Your task to perform on an android device: change your default location settings in chrome Image 0: 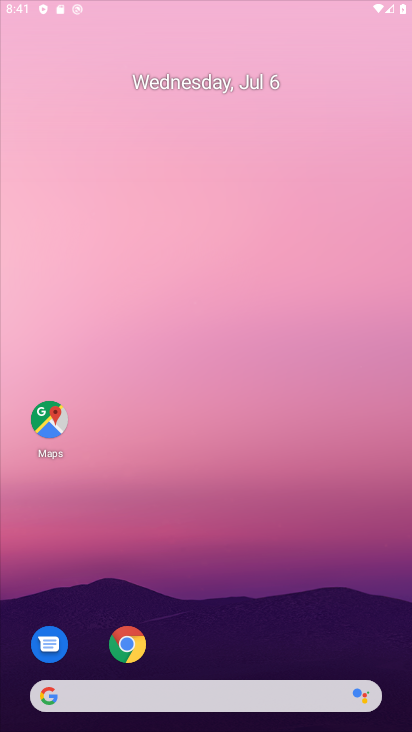
Step 0: press home button
Your task to perform on an android device: change your default location settings in chrome Image 1: 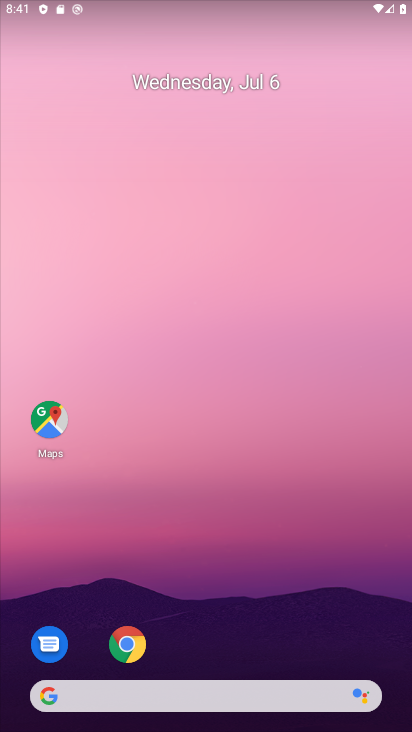
Step 1: drag from (248, 508) to (256, 108)
Your task to perform on an android device: change your default location settings in chrome Image 2: 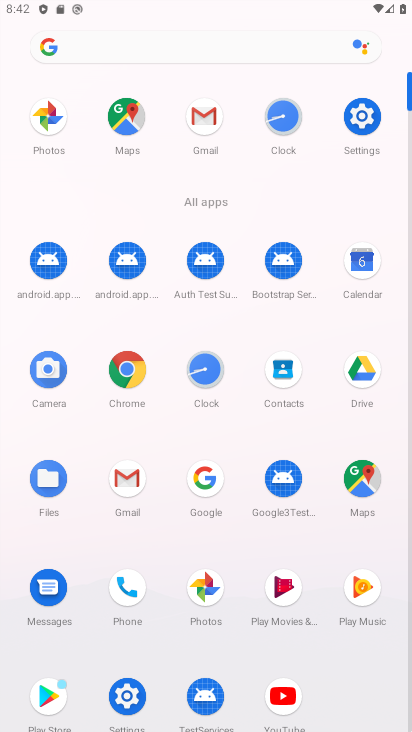
Step 2: click (114, 398)
Your task to perform on an android device: change your default location settings in chrome Image 3: 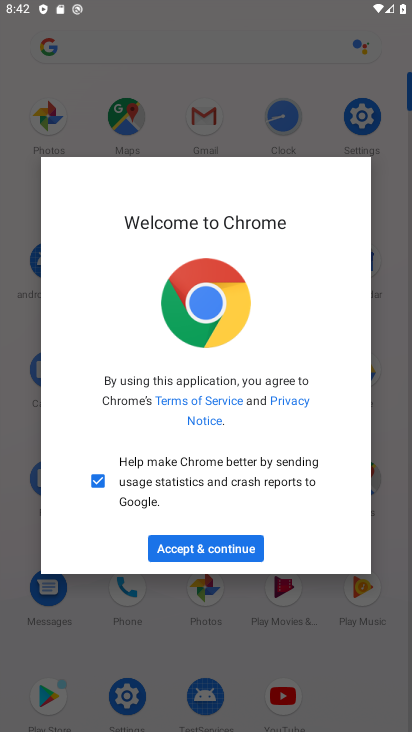
Step 3: click (216, 557)
Your task to perform on an android device: change your default location settings in chrome Image 4: 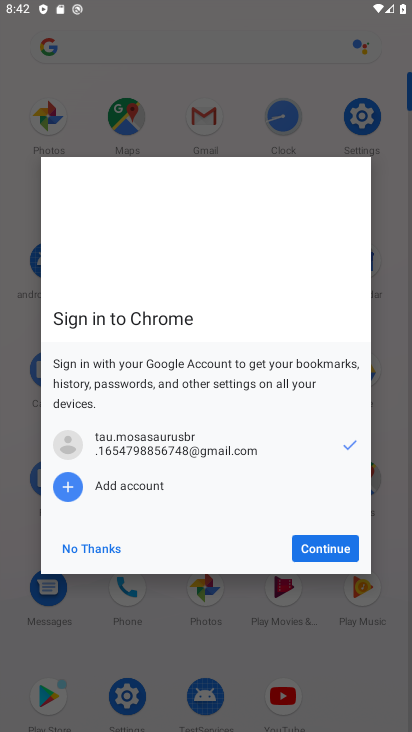
Step 4: click (324, 551)
Your task to perform on an android device: change your default location settings in chrome Image 5: 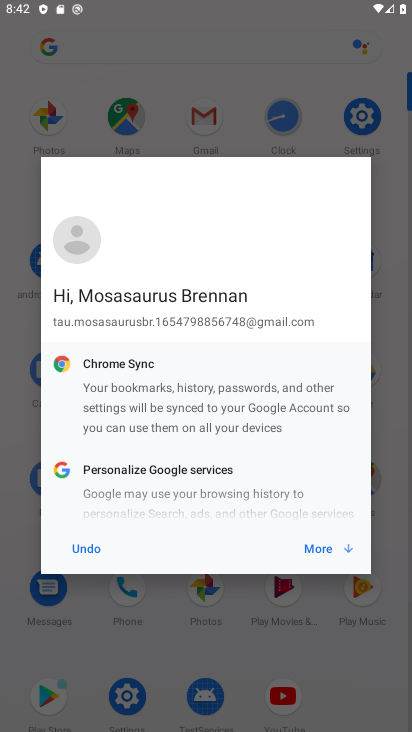
Step 5: click (309, 550)
Your task to perform on an android device: change your default location settings in chrome Image 6: 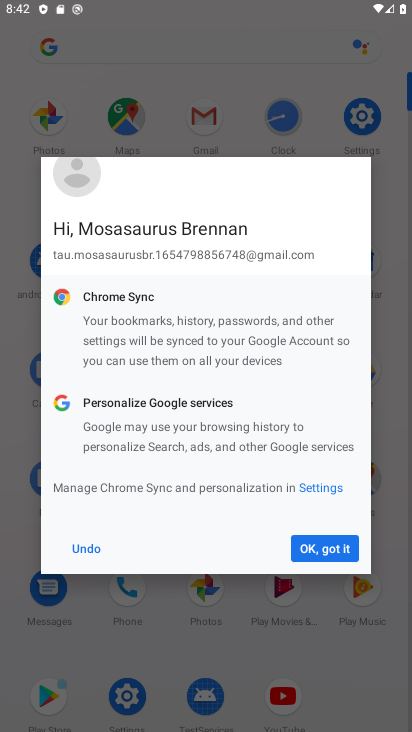
Step 6: click (339, 550)
Your task to perform on an android device: change your default location settings in chrome Image 7: 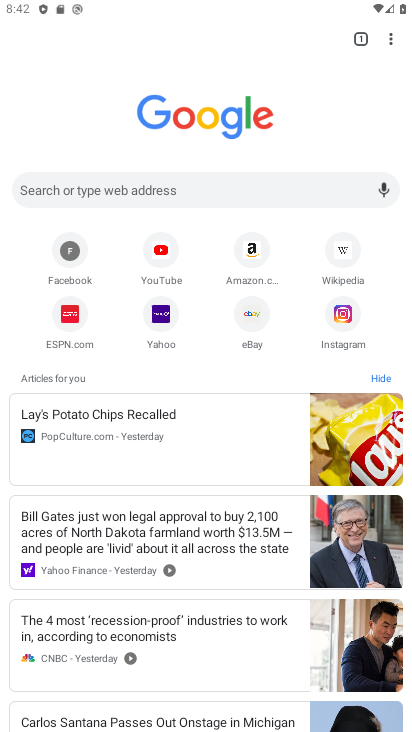
Step 7: click (391, 47)
Your task to perform on an android device: change your default location settings in chrome Image 8: 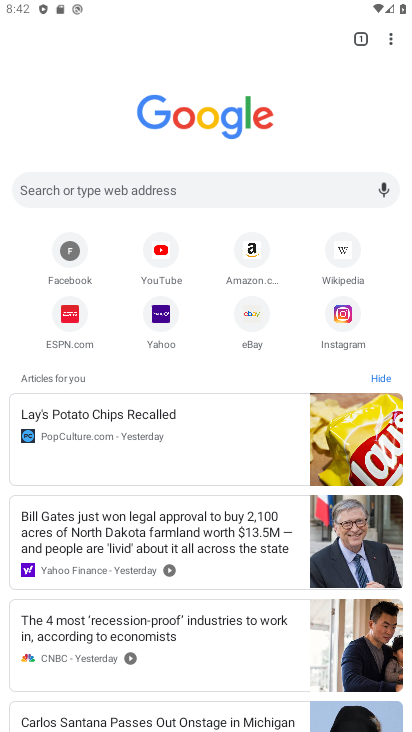
Step 8: click (395, 43)
Your task to perform on an android device: change your default location settings in chrome Image 9: 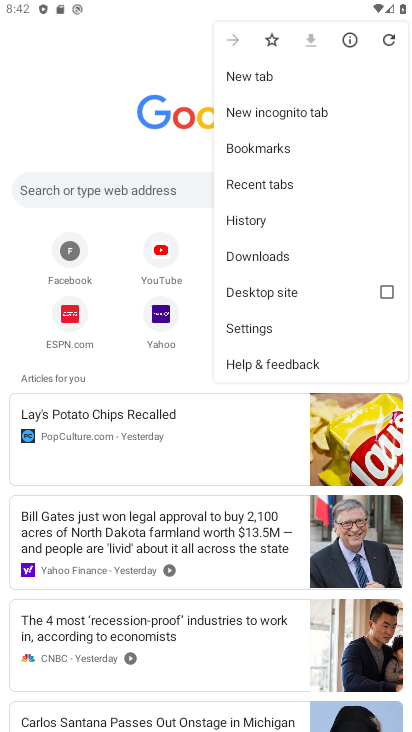
Step 9: click (266, 332)
Your task to perform on an android device: change your default location settings in chrome Image 10: 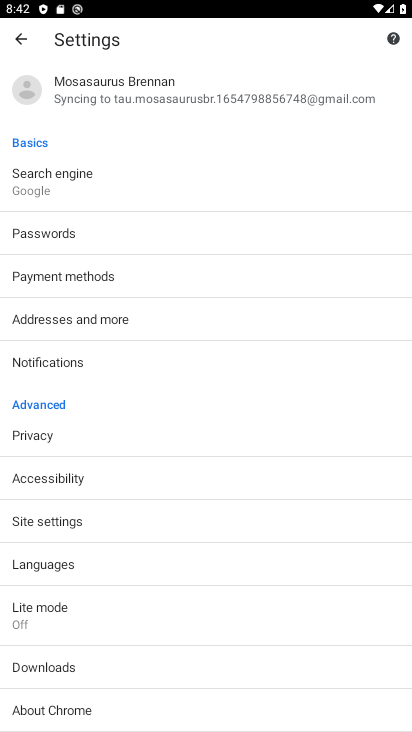
Step 10: click (67, 517)
Your task to perform on an android device: change your default location settings in chrome Image 11: 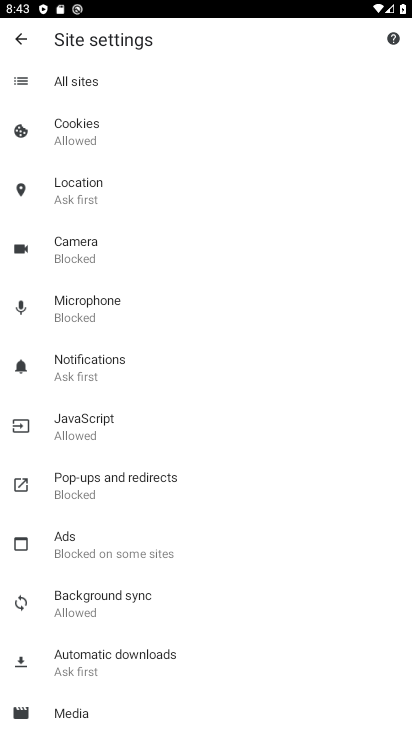
Step 11: drag from (159, 314) to (175, 544)
Your task to perform on an android device: change your default location settings in chrome Image 12: 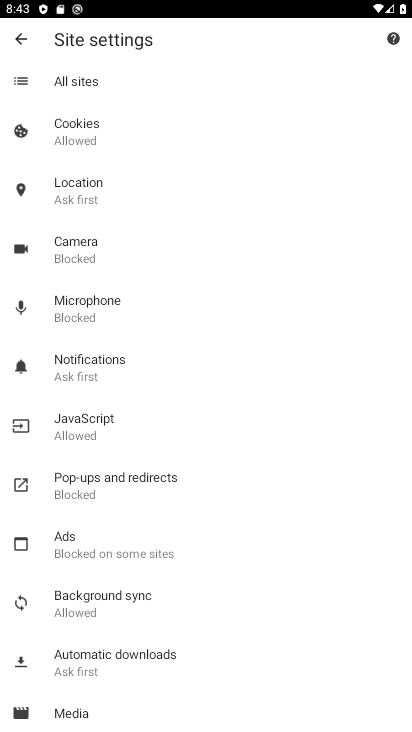
Step 12: click (90, 207)
Your task to perform on an android device: change your default location settings in chrome Image 13: 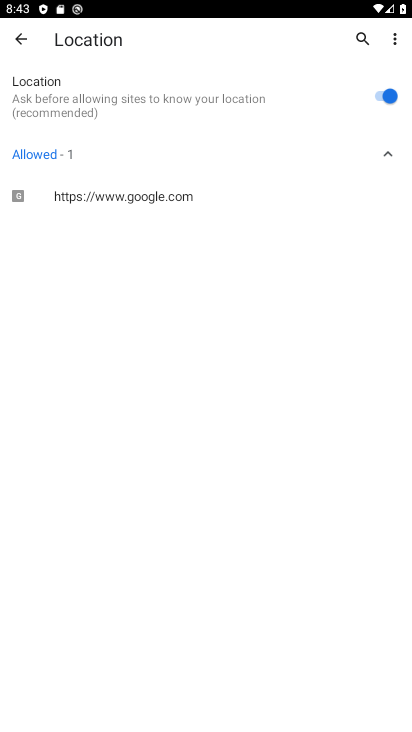
Step 13: click (375, 100)
Your task to perform on an android device: change your default location settings in chrome Image 14: 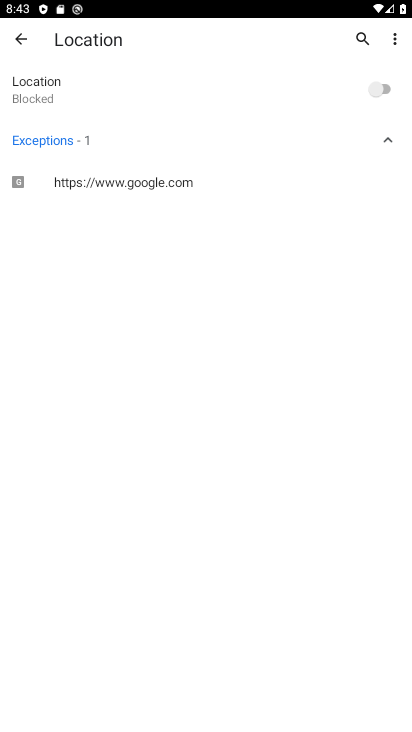
Step 14: task complete